Your task to perform on an android device: open wifi settings Image 0: 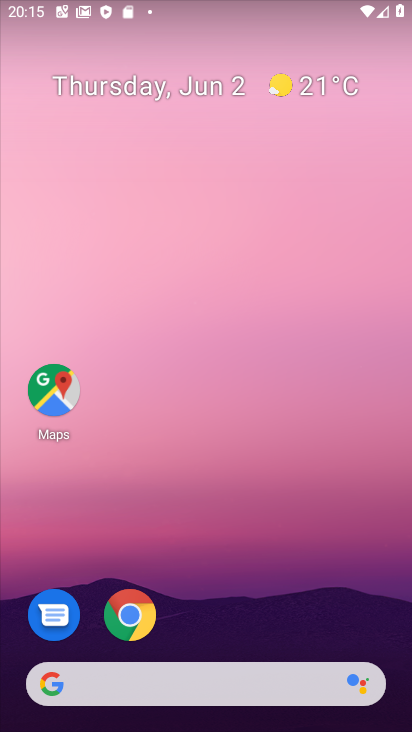
Step 0: task complete